Your task to perform on an android device: What is the recent news? Image 0: 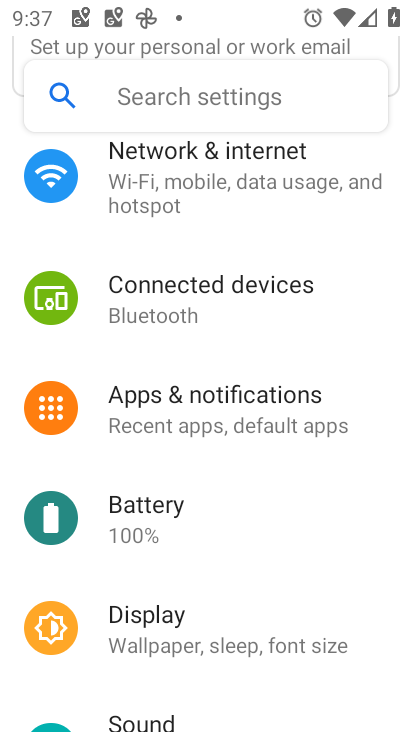
Step 0: press home button
Your task to perform on an android device: What is the recent news? Image 1: 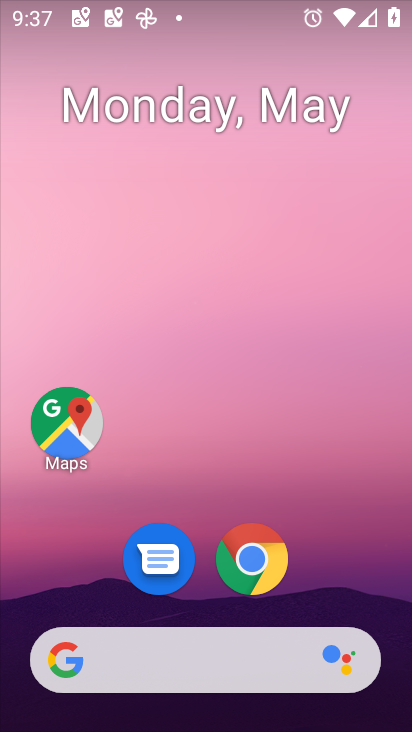
Step 1: drag from (381, 653) to (236, 67)
Your task to perform on an android device: What is the recent news? Image 2: 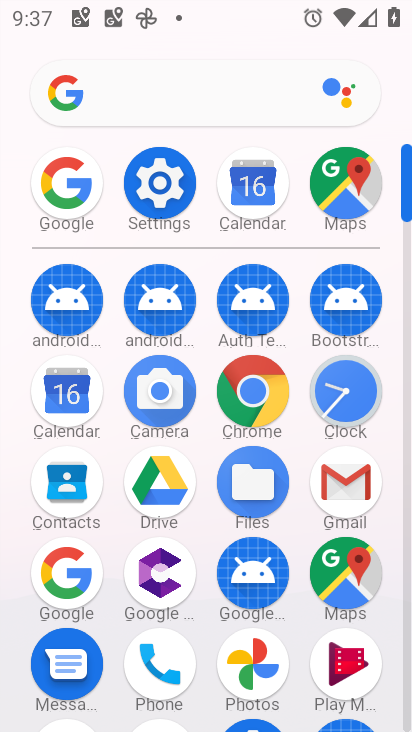
Step 2: click (251, 400)
Your task to perform on an android device: What is the recent news? Image 3: 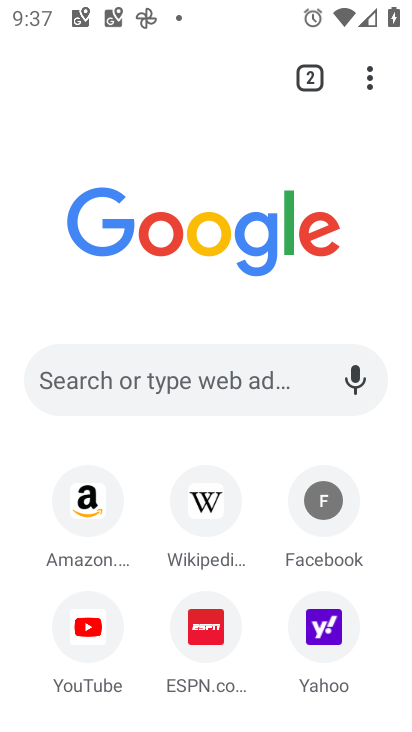
Step 3: drag from (148, 646) to (130, 118)
Your task to perform on an android device: What is the recent news? Image 4: 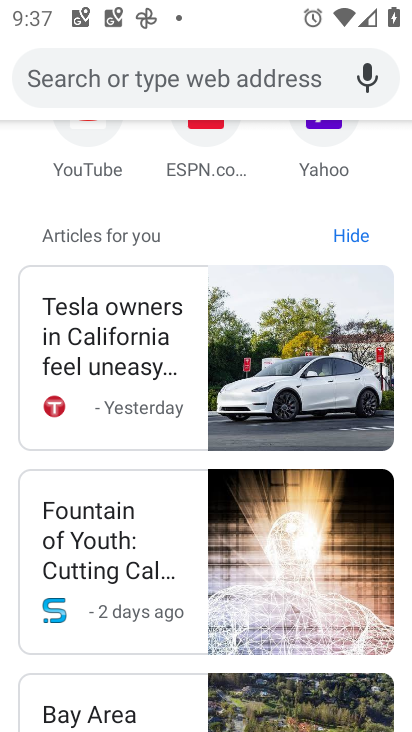
Step 4: click (139, 348)
Your task to perform on an android device: What is the recent news? Image 5: 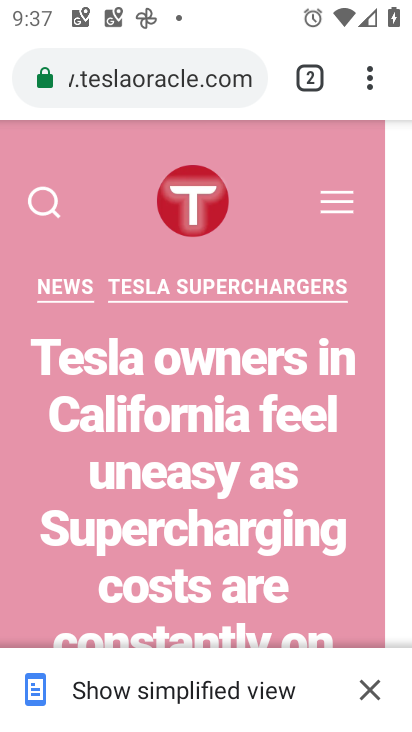
Step 5: task complete